Your task to perform on an android device: Open Youtube and go to the subscriptions tab Image 0: 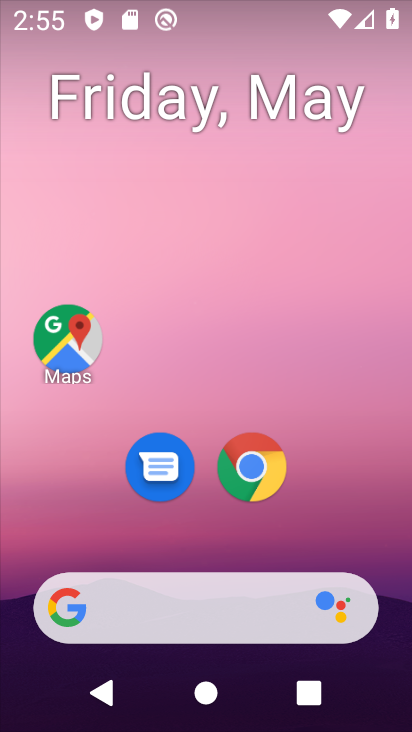
Step 0: drag from (315, 518) to (259, 48)
Your task to perform on an android device: Open Youtube and go to the subscriptions tab Image 1: 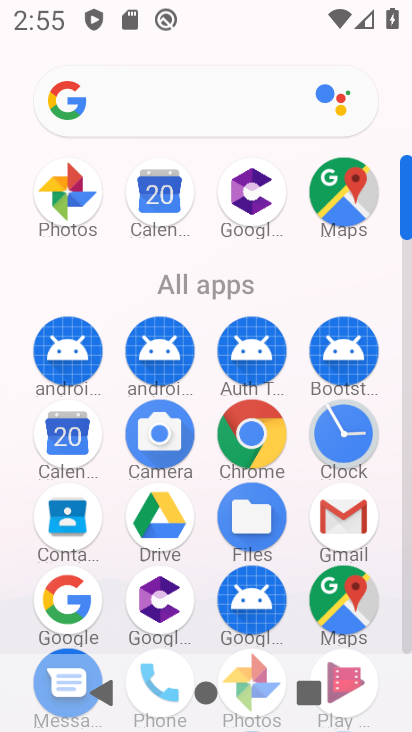
Step 1: drag from (396, 490) to (390, 291)
Your task to perform on an android device: Open Youtube and go to the subscriptions tab Image 2: 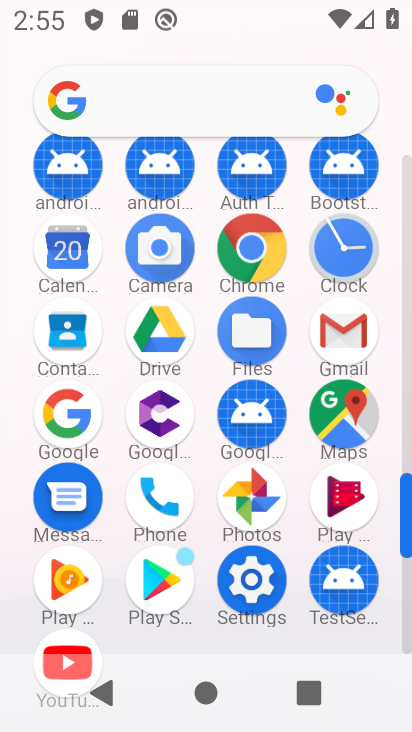
Step 2: click (83, 646)
Your task to perform on an android device: Open Youtube and go to the subscriptions tab Image 3: 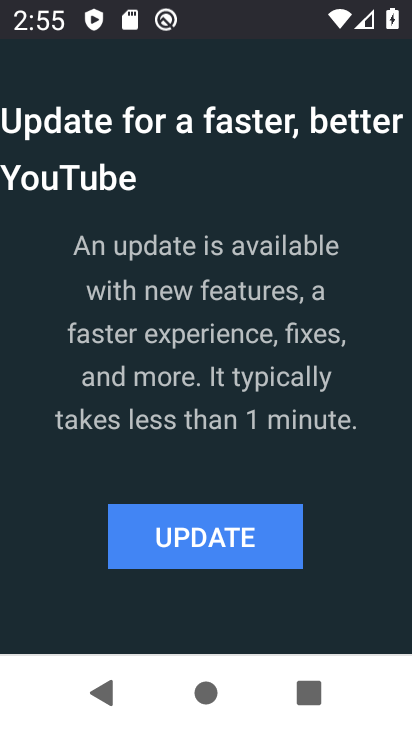
Step 3: click (253, 524)
Your task to perform on an android device: Open Youtube and go to the subscriptions tab Image 4: 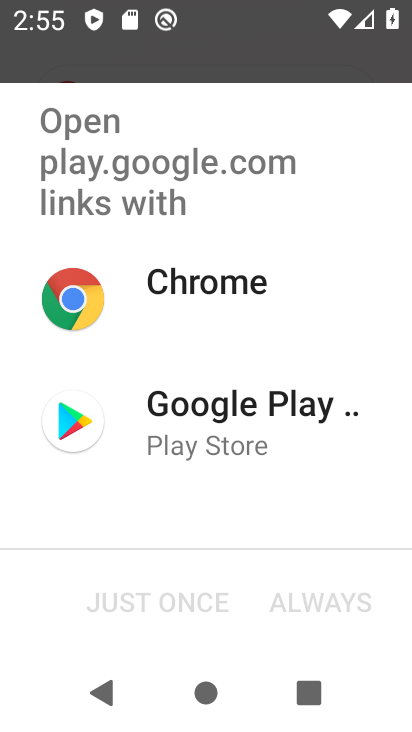
Step 4: click (163, 609)
Your task to perform on an android device: Open Youtube and go to the subscriptions tab Image 5: 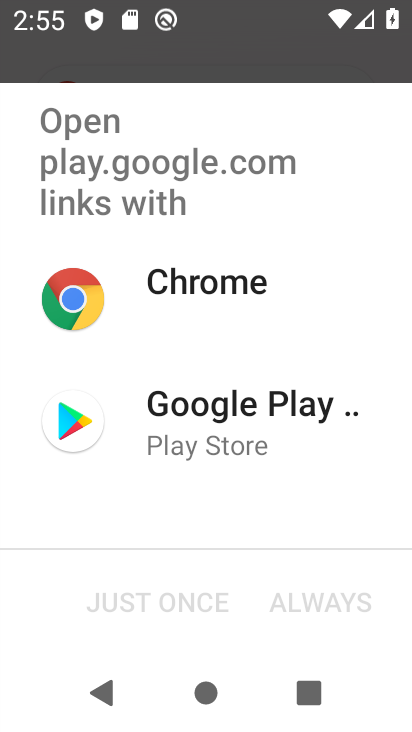
Step 5: click (160, 449)
Your task to perform on an android device: Open Youtube and go to the subscriptions tab Image 6: 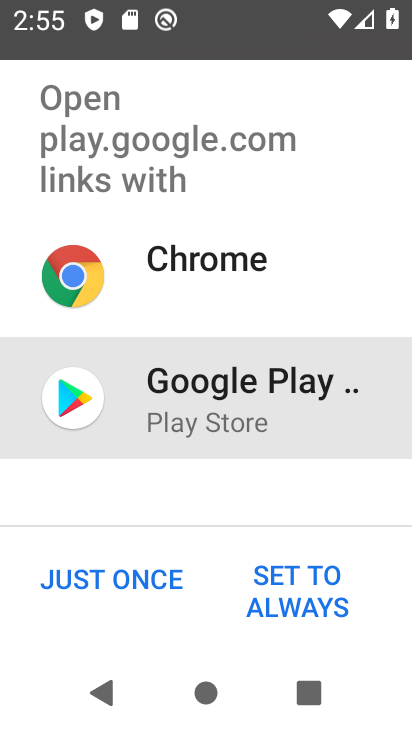
Step 6: click (176, 587)
Your task to perform on an android device: Open Youtube and go to the subscriptions tab Image 7: 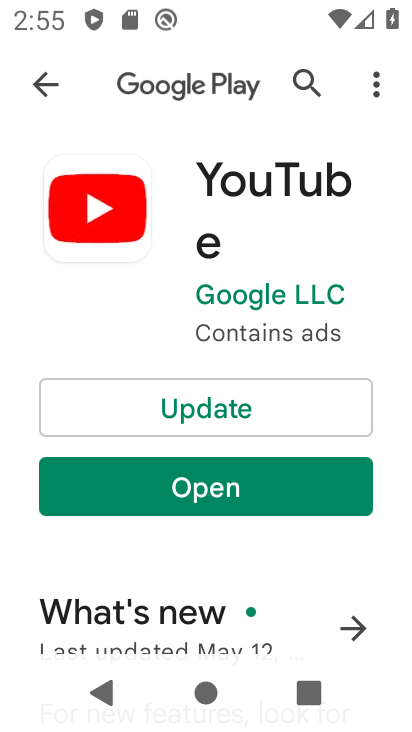
Step 7: click (246, 410)
Your task to perform on an android device: Open Youtube and go to the subscriptions tab Image 8: 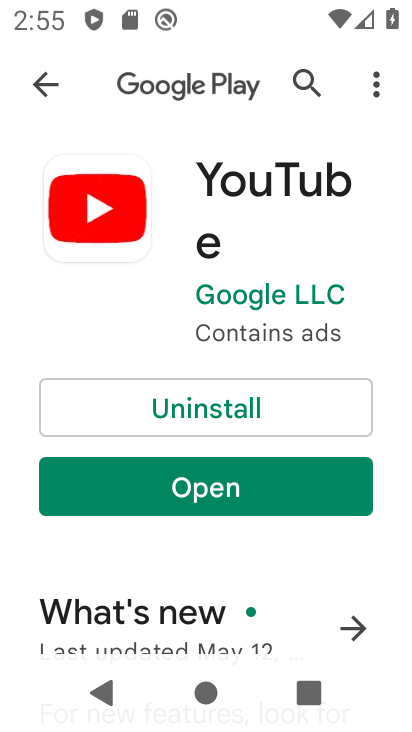
Step 8: click (242, 484)
Your task to perform on an android device: Open Youtube and go to the subscriptions tab Image 9: 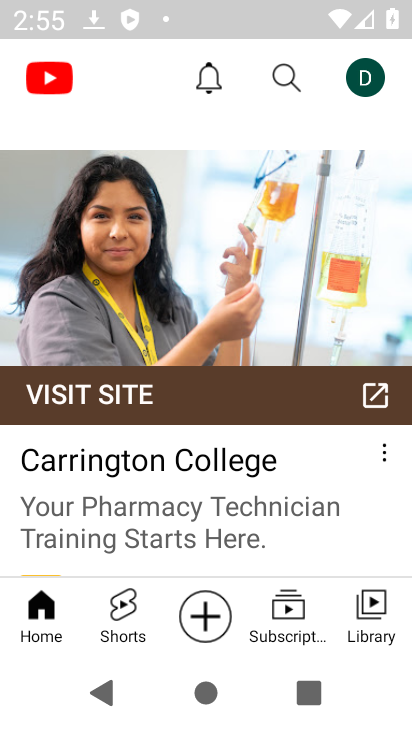
Step 9: drag from (279, 441) to (225, 160)
Your task to perform on an android device: Open Youtube and go to the subscriptions tab Image 10: 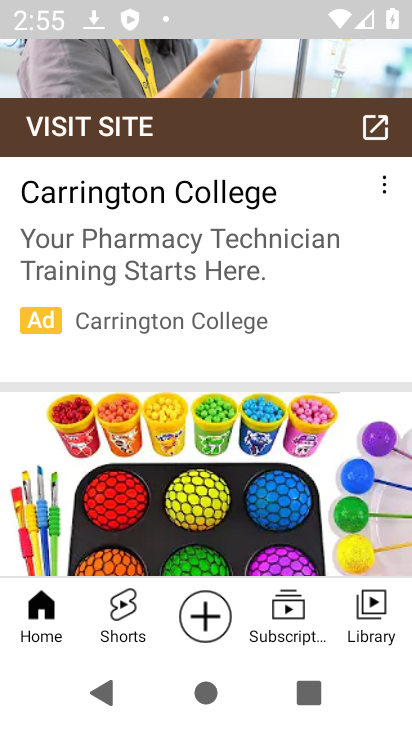
Step 10: click (289, 601)
Your task to perform on an android device: Open Youtube and go to the subscriptions tab Image 11: 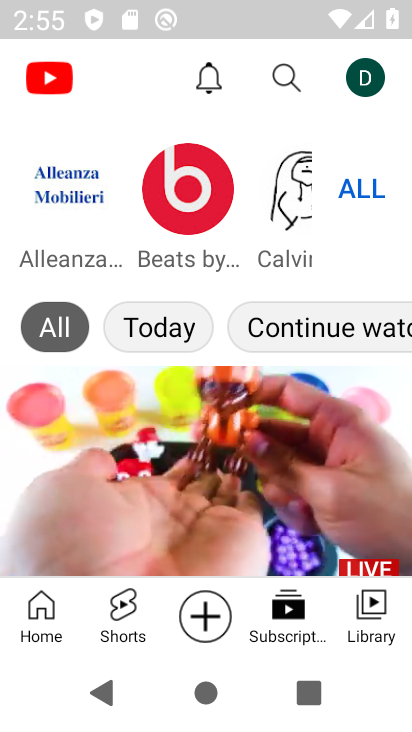
Step 11: task complete